Your task to perform on an android device: Open the calendar and show me this week's events? Image 0: 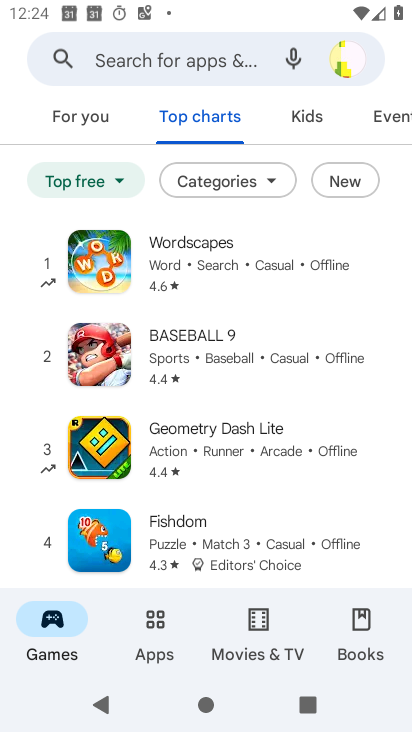
Step 0: press home button
Your task to perform on an android device: Open the calendar and show me this week's events? Image 1: 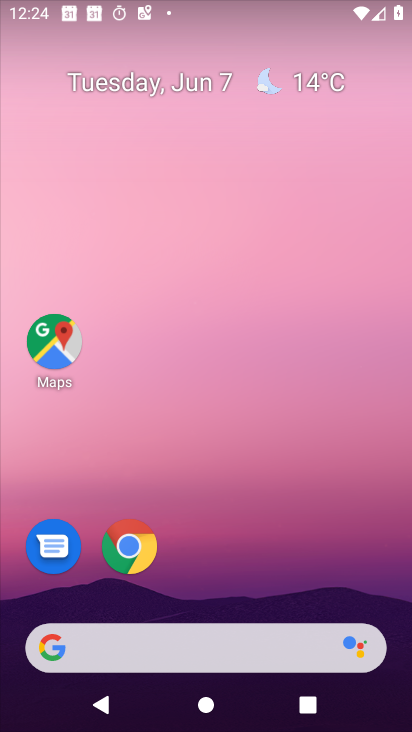
Step 1: drag from (178, 504) to (237, 0)
Your task to perform on an android device: Open the calendar and show me this week's events? Image 2: 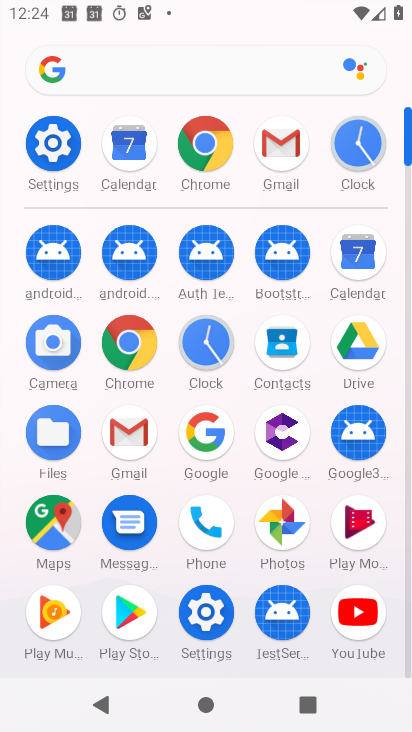
Step 2: click (366, 279)
Your task to perform on an android device: Open the calendar and show me this week's events? Image 3: 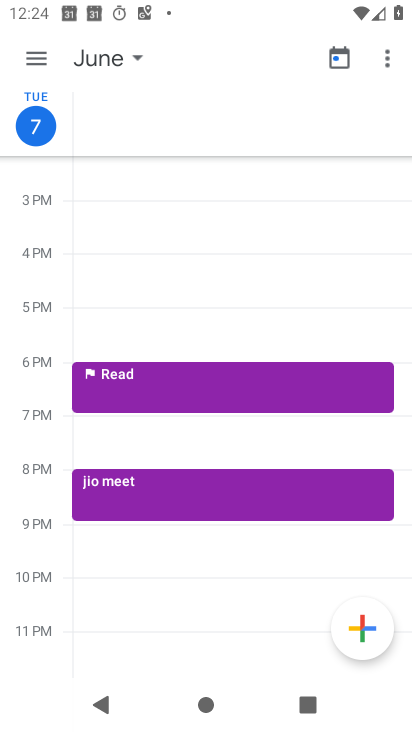
Step 3: click (25, 60)
Your task to perform on an android device: Open the calendar and show me this week's events? Image 4: 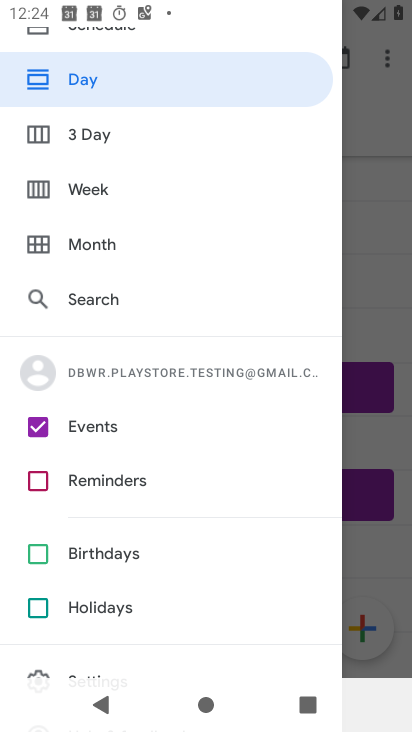
Step 4: click (100, 192)
Your task to perform on an android device: Open the calendar and show me this week's events? Image 5: 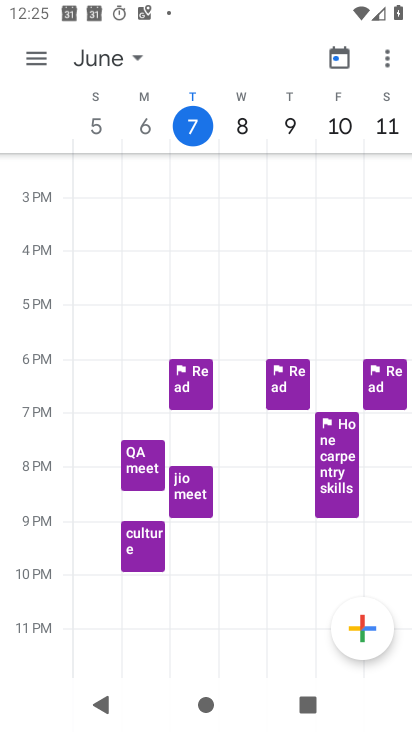
Step 5: task complete